Your task to perform on an android device: check storage Image 0: 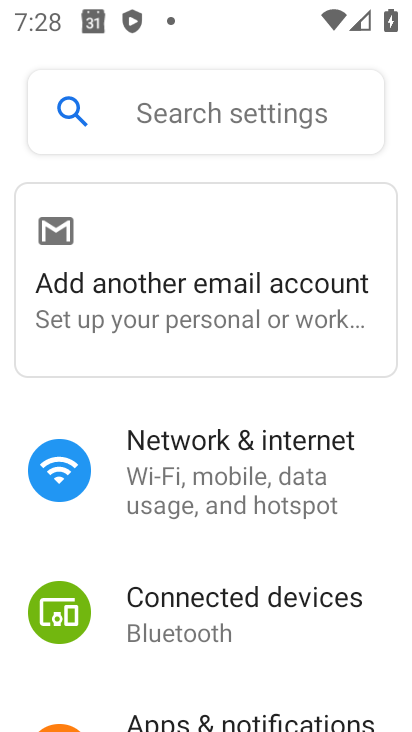
Step 0: press home button
Your task to perform on an android device: check storage Image 1: 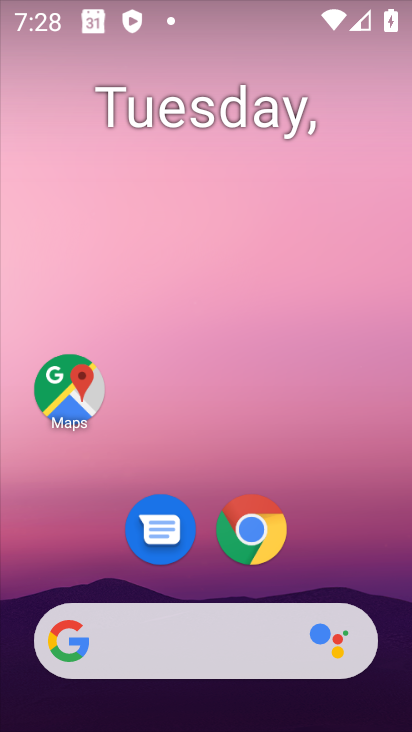
Step 1: drag from (183, 603) to (322, 4)
Your task to perform on an android device: check storage Image 2: 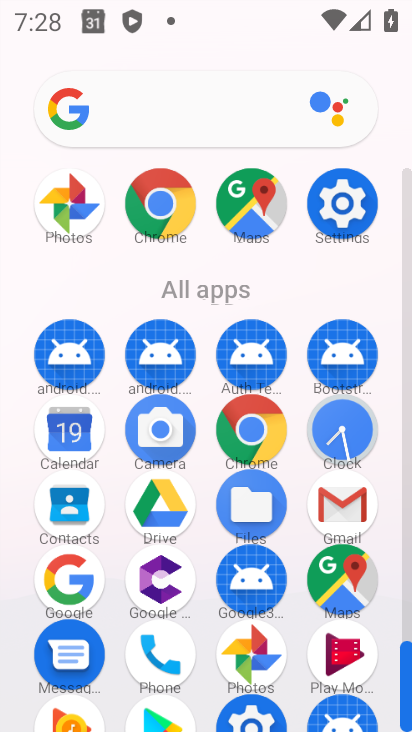
Step 2: click (349, 208)
Your task to perform on an android device: check storage Image 3: 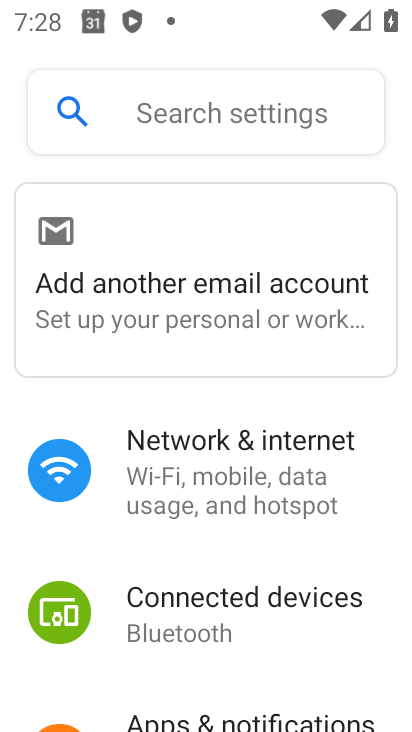
Step 3: drag from (215, 647) to (322, 202)
Your task to perform on an android device: check storage Image 4: 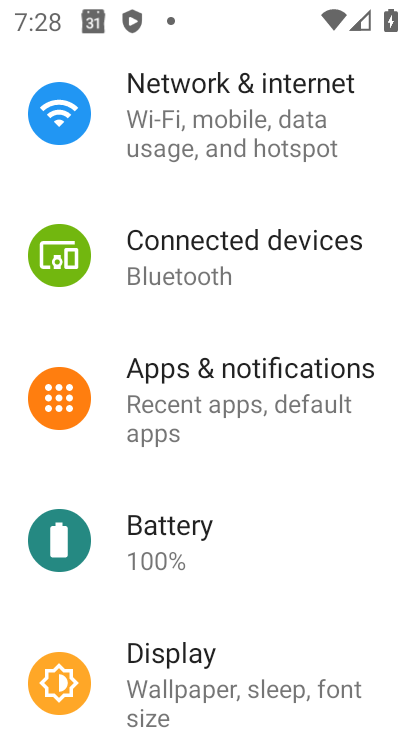
Step 4: drag from (226, 587) to (303, 229)
Your task to perform on an android device: check storage Image 5: 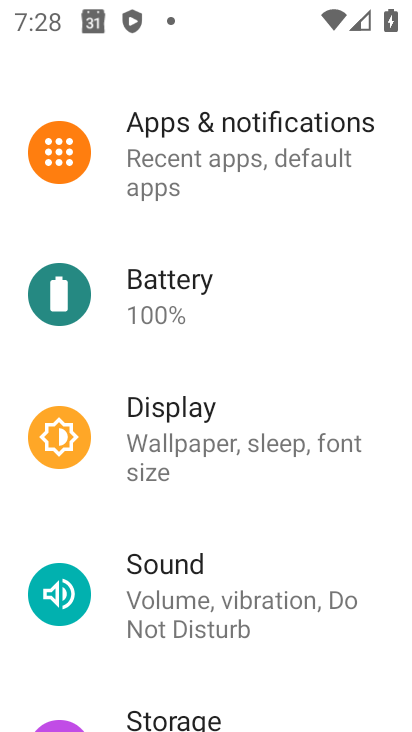
Step 5: drag from (226, 559) to (367, 159)
Your task to perform on an android device: check storage Image 6: 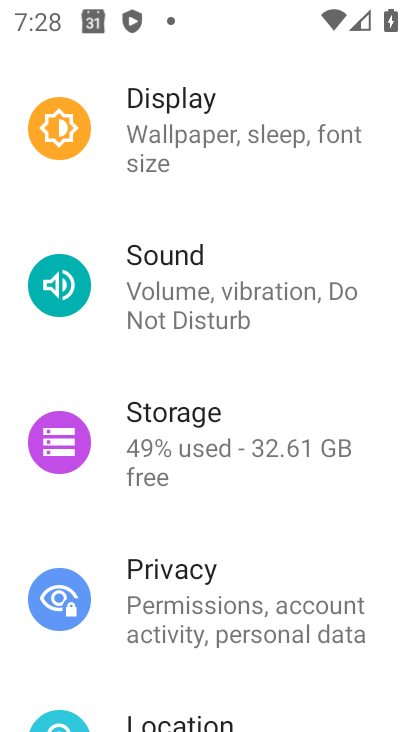
Step 6: click (212, 444)
Your task to perform on an android device: check storage Image 7: 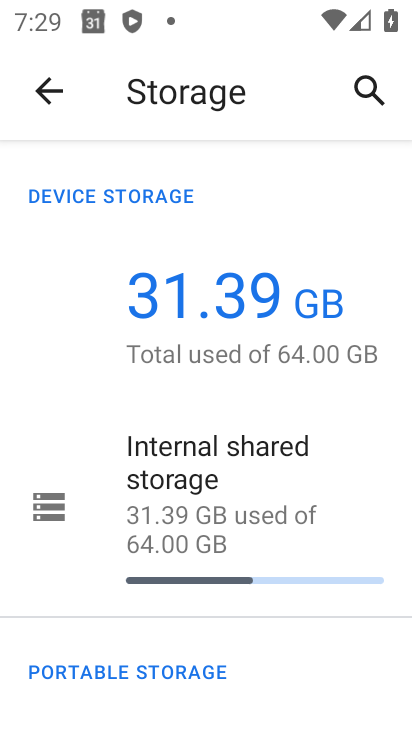
Step 7: task complete